Your task to perform on an android device: Search for pizza restaurants on Maps Image 0: 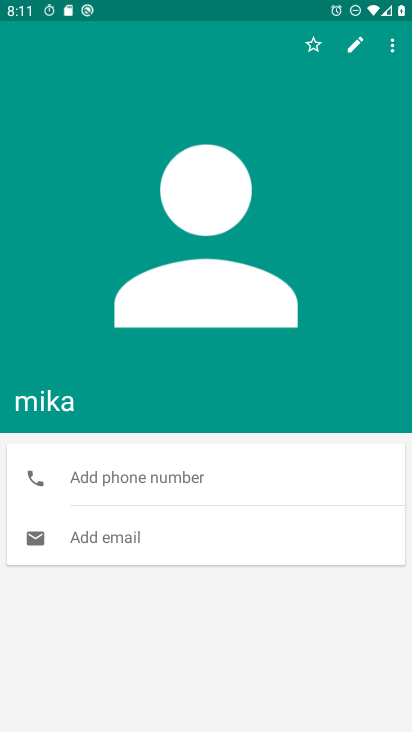
Step 0: press home button
Your task to perform on an android device: Search for pizza restaurants on Maps Image 1: 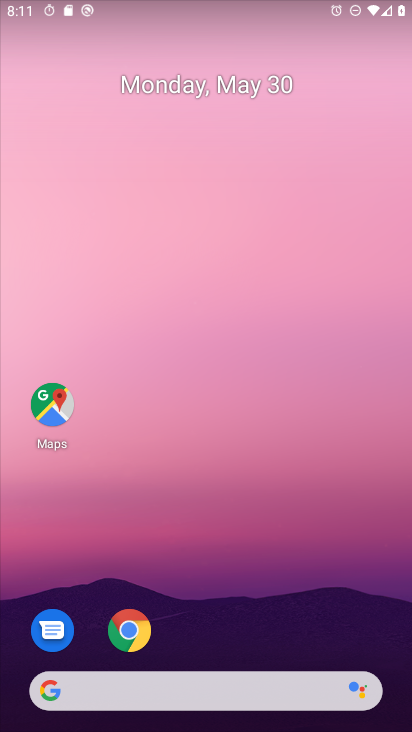
Step 1: drag from (244, 629) to (224, 180)
Your task to perform on an android device: Search for pizza restaurants on Maps Image 2: 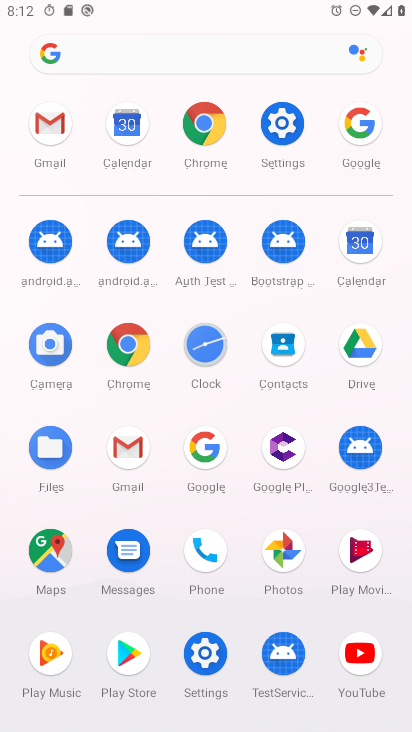
Step 2: click (48, 538)
Your task to perform on an android device: Search for pizza restaurants on Maps Image 3: 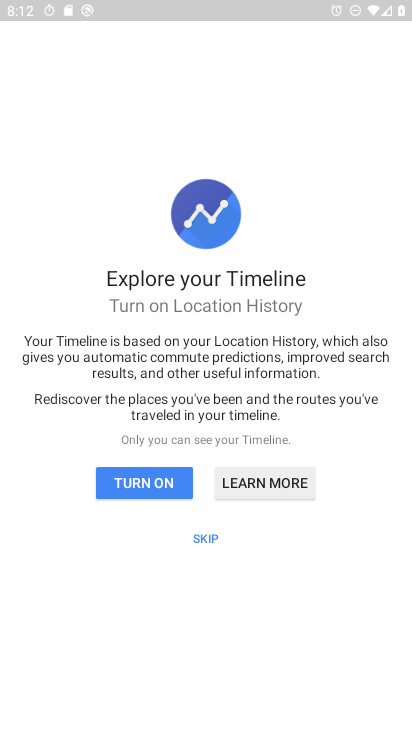
Step 3: press back button
Your task to perform on an android device: Search for pizza restaurants on Maps Image 4: 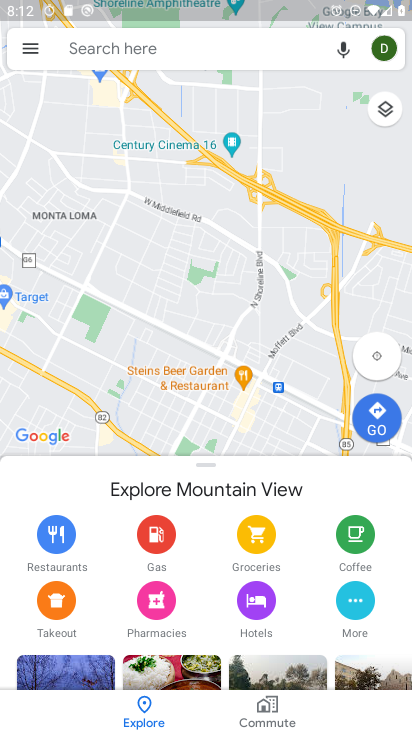
Step 4: click (119, 50)
Your task to perform on an android device: Search for pizza restaurants on Maps Image 5: 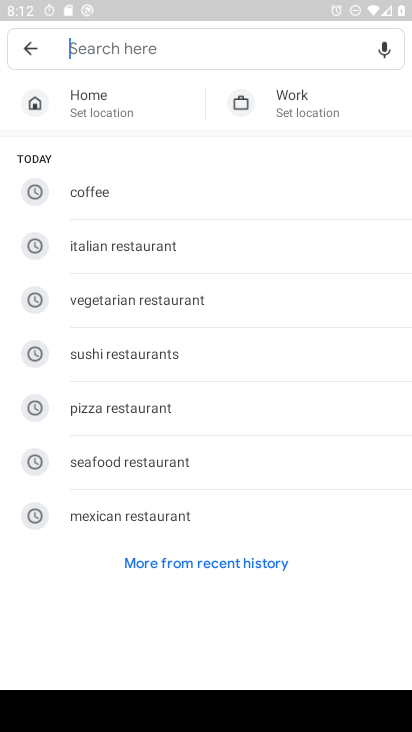
Step 5: click (132, 417)
Your task to perform on an android device: Search for pizza restaurants on Maps Image 6: 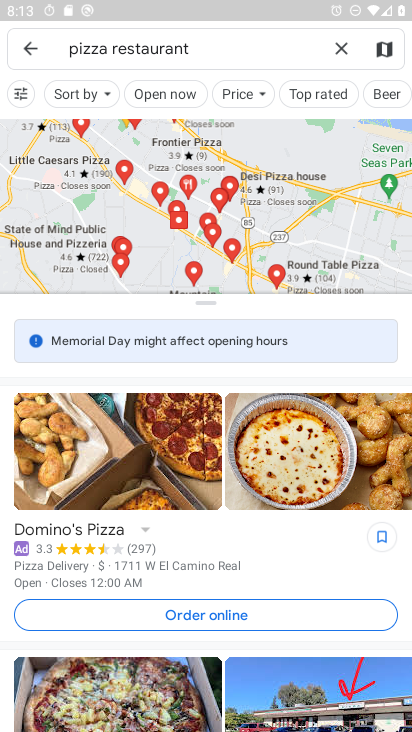
Step 6: task complete